Your task to perform on an android device: open wifi settings Image 0: 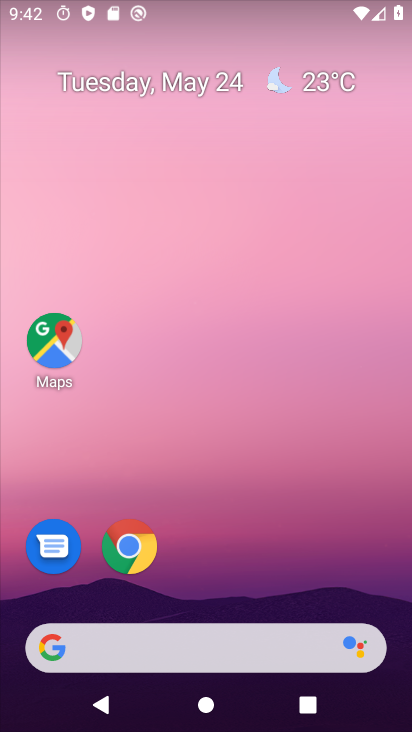
Step 0: drag from (228, 424) to (236, 70)
Your task to perform on an android device: open wifi settings Image 1: 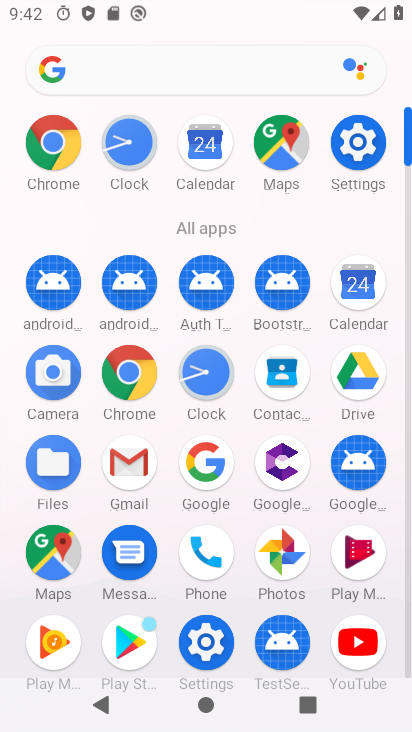
Step 1: click (362, 142)
Your task to perform on an android device: open wifi settings Image 2: 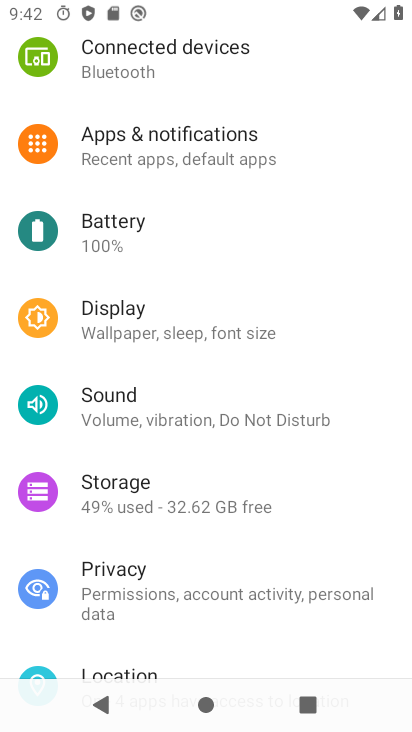
Step 2: drag from (181, 112) to (260, 578)
Your task to perform on an android device: open wifi settings Image 3: 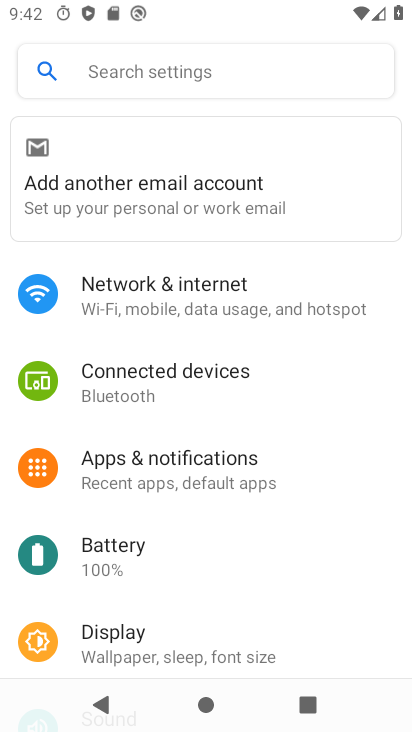
Step 3: click (154, 294)
Your task to perform on an android device: open wifi settings Image 4: 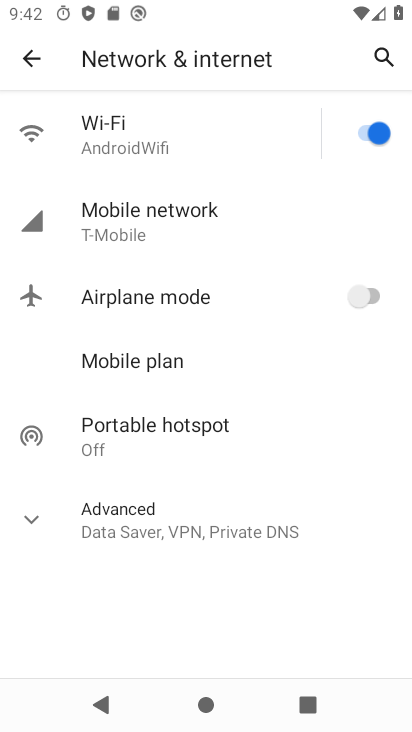
Step 4: click (143, 126)
Your task to perform on an android device: open wifi settings Image 5: 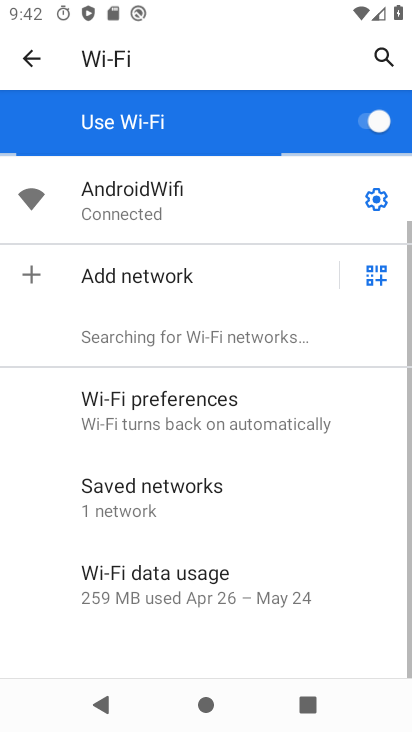
Step 5: click (281, 197)
Your task to perform on an android device: open wifi settings Image 6: 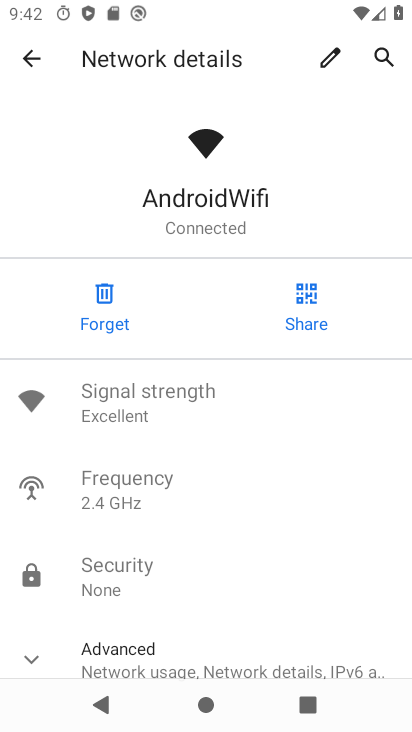
Step 6: task complete